Your task to perform on an android device: open app "Spotify" (install if not already installed) and go to login screen Image 0: 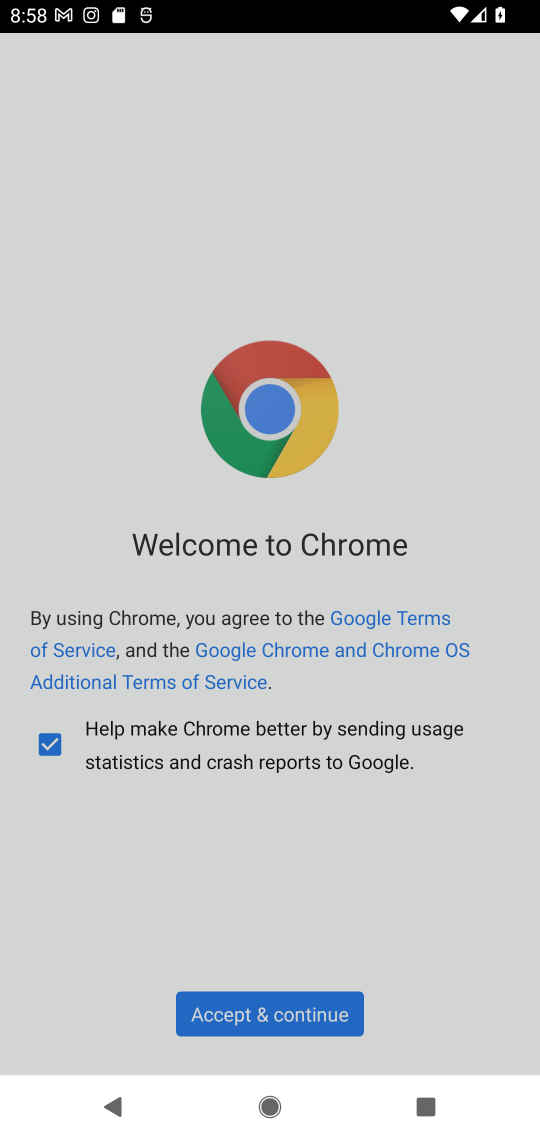
Step 0: press home button
Your task to perform on an android device: open app "Spotify" (install if not already installed) and go to login screen Image 1: 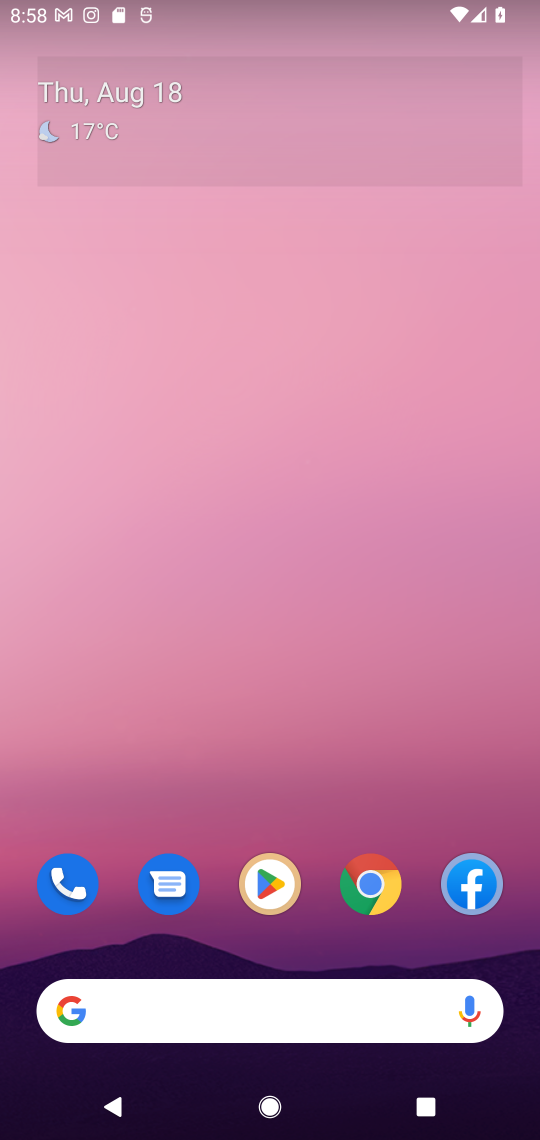
Step 1: drag from (207, 1025) to (247, 217)
Your task to perform on an android device: open app "Spotify" (install if not already installed) and go to login screen Image 2: 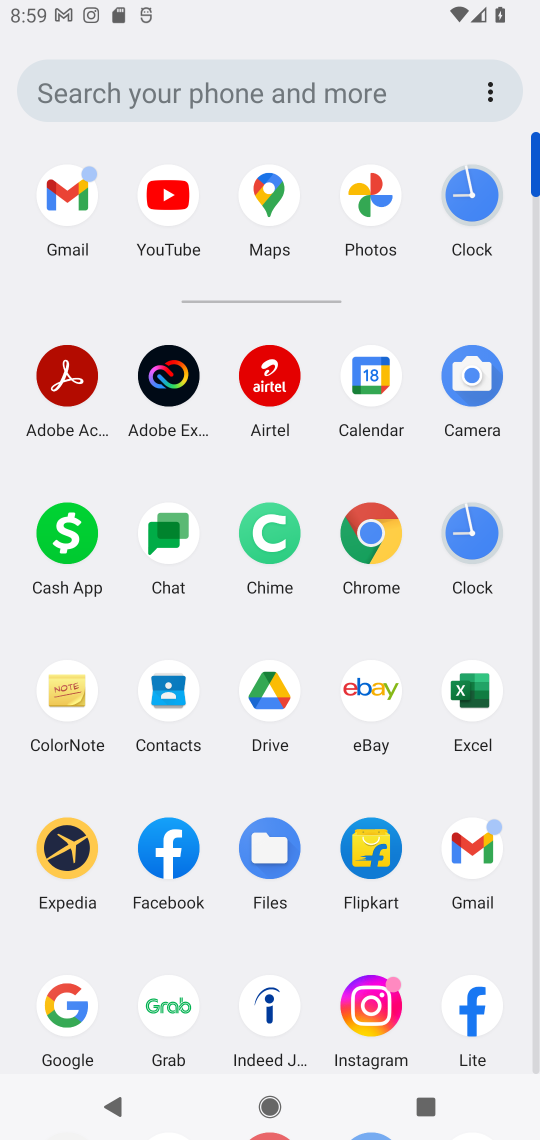
Step 2: drag from (219, 967) to (241, 382)
Your task to perform on an android device: open app "Spotify" (install if not already installed) and go to login screen Image 3: 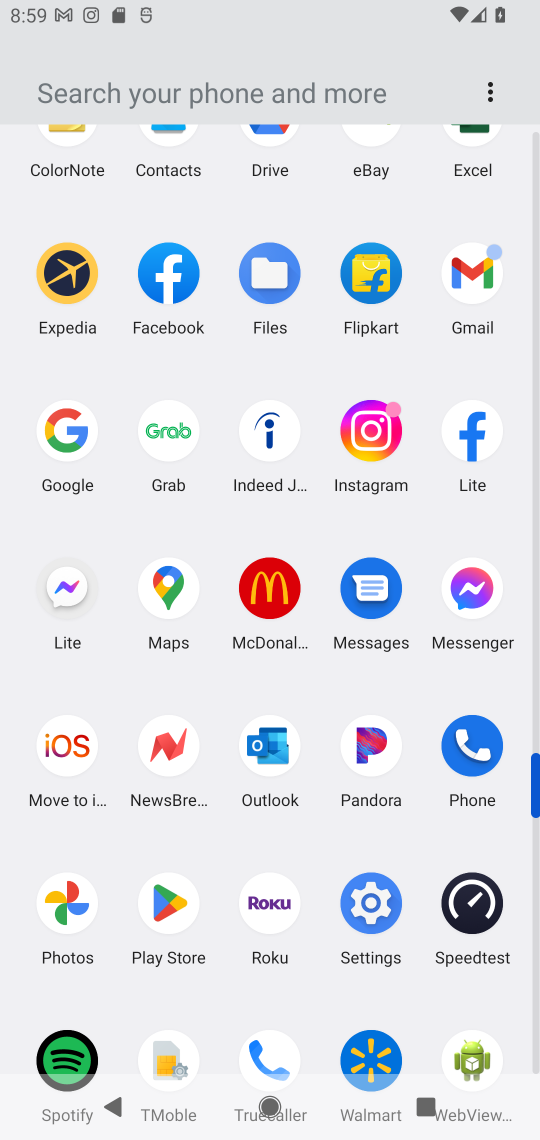
Step 3: click (167, 908)
Your task to perform on an android device: open app "Spotify" (install if not already installed) and go to login screen Image 4: 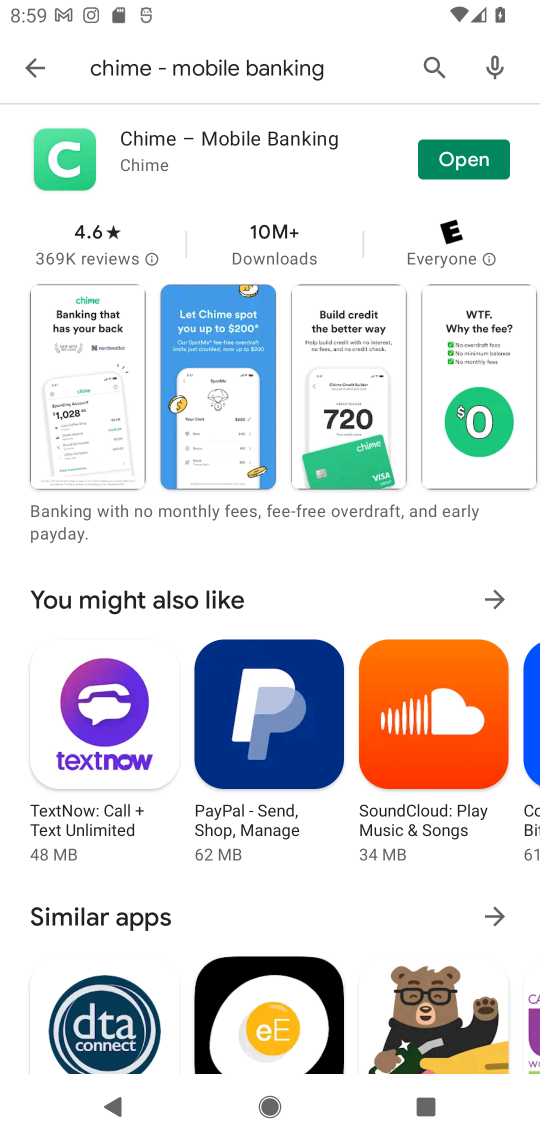
Step 4: press back button
Your task to perform on an android device: open app "Spotify" (install if not already installed) and go to login screen Image 5: 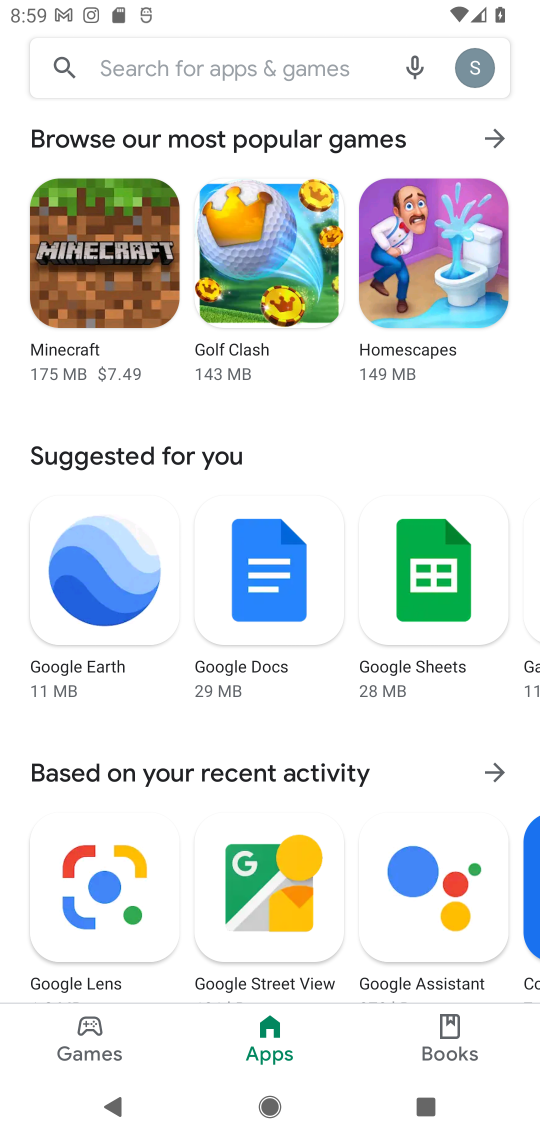
Step 5: click (302, 66)
Your task to perform on an android device: open app "Spotify" (install if not already installed) and go to login screen Image 6: 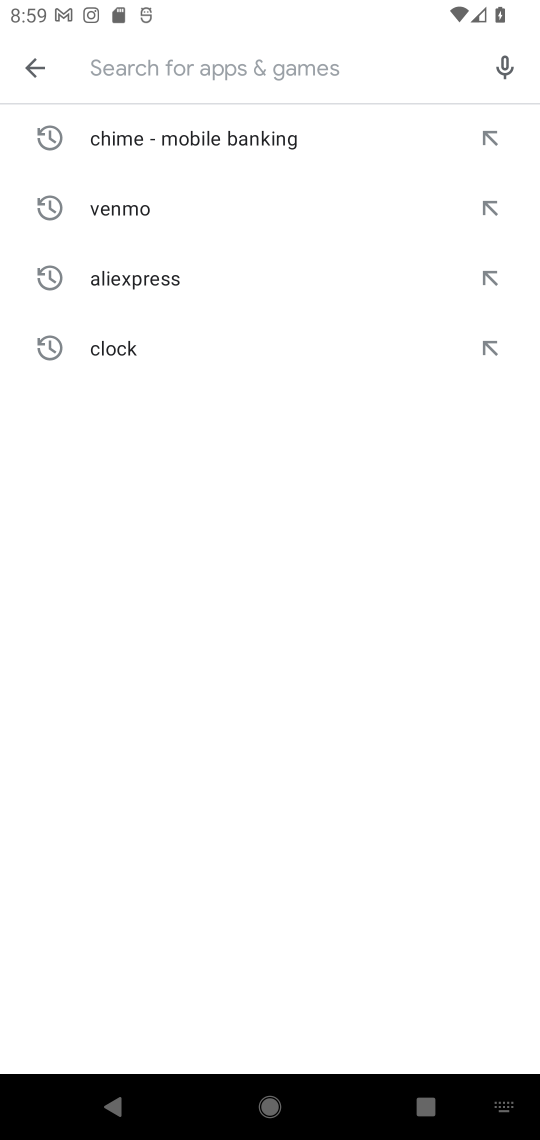
Step 6: type "Spotify"
Your task to perform on an android device: open app "Spotify" (install if not already installed) and go to login screen Image 7: 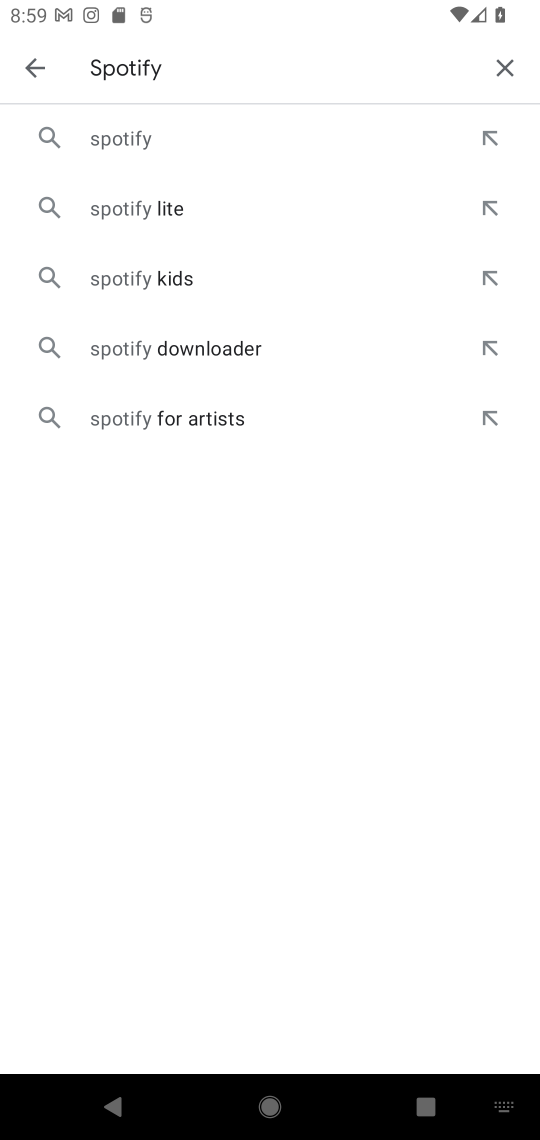
Step 7: click (126, 143)
Your task to perform on an android device: open app "Spotify" (install if not already installed) and go to login screen Image 8: 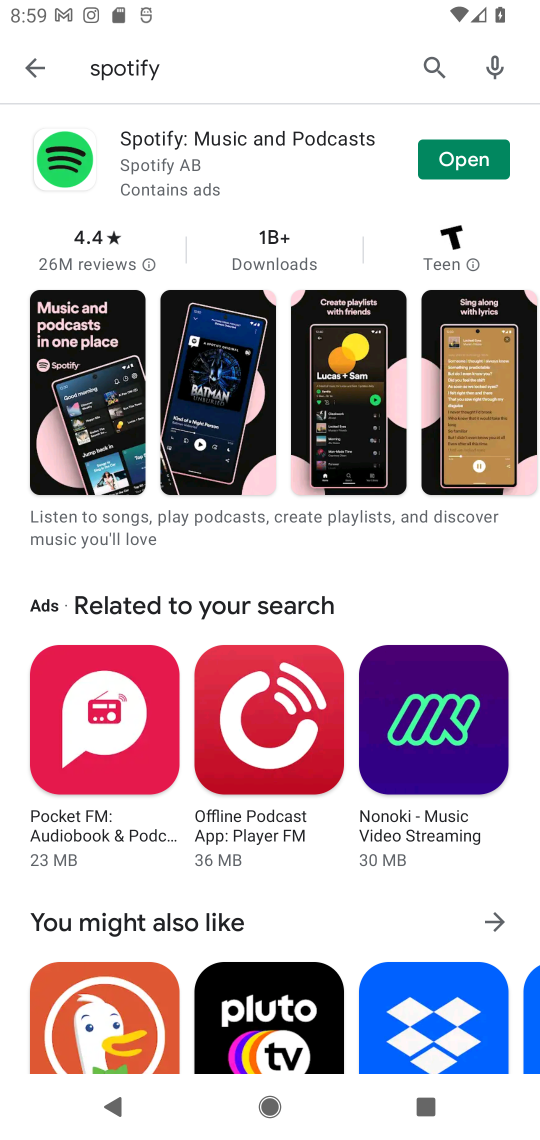
Step 8: click (469, 161)
Your task to perform on an android device: open app "Spotify" (install if not already installed) and go to login screen Image 9: 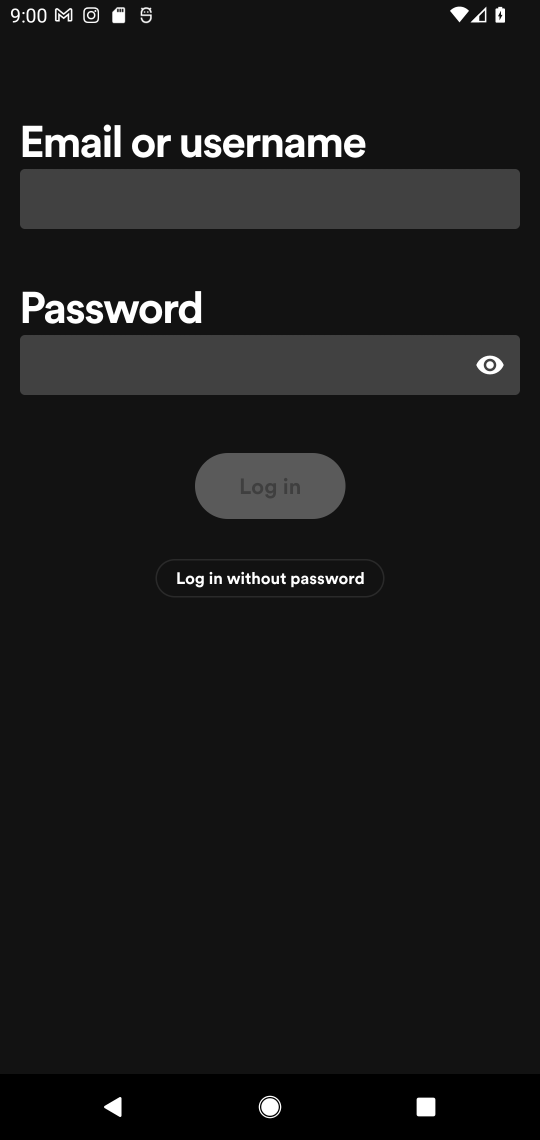
Step 9: task complete